Your task to perform on an android device: Clear all items from cart on amazon. Add "bose soundsport free" to the cart on amazon, then select checkout. Image 0: 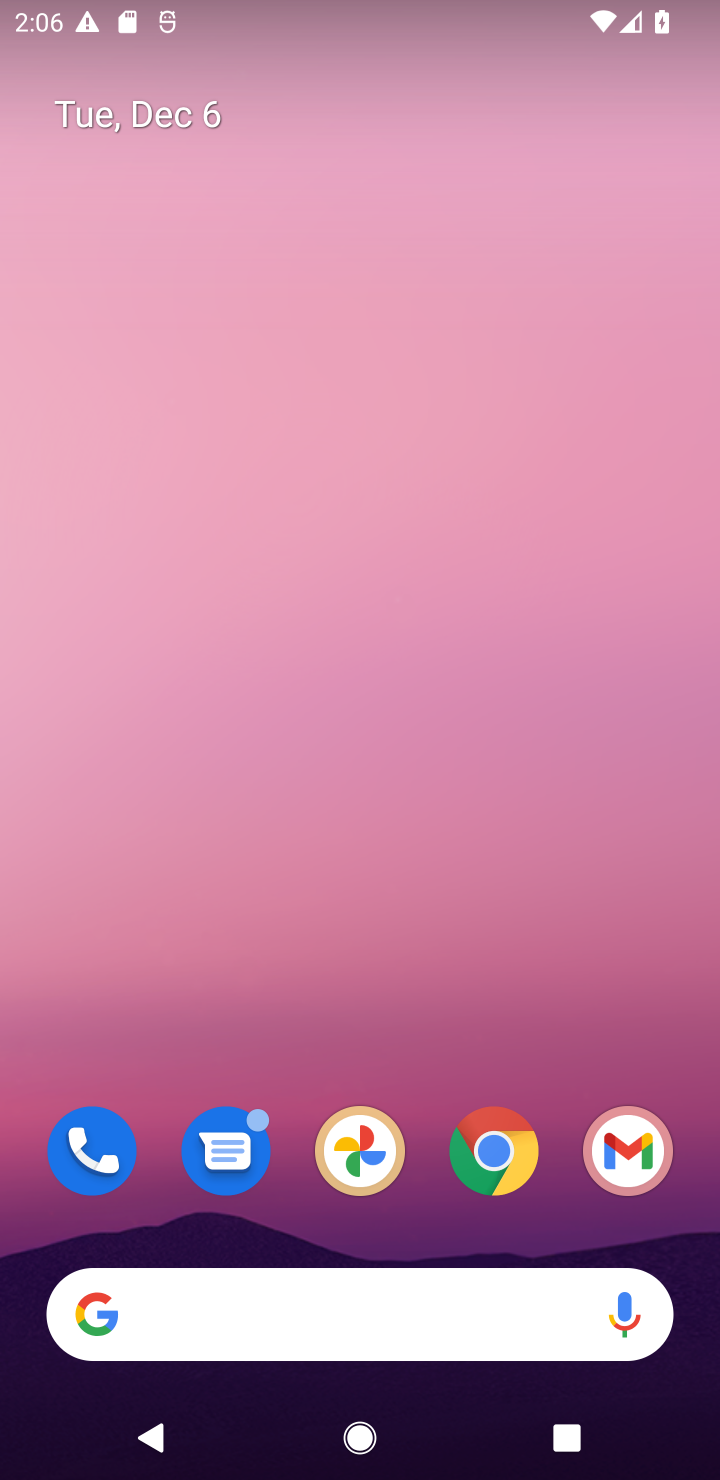
Step 0: click (495, 1175)
Your task to perform on an android device: Clear all items from cart on amazon. Add "bose soundsport free" to the cart on amazon, then select checkout. Image 1: 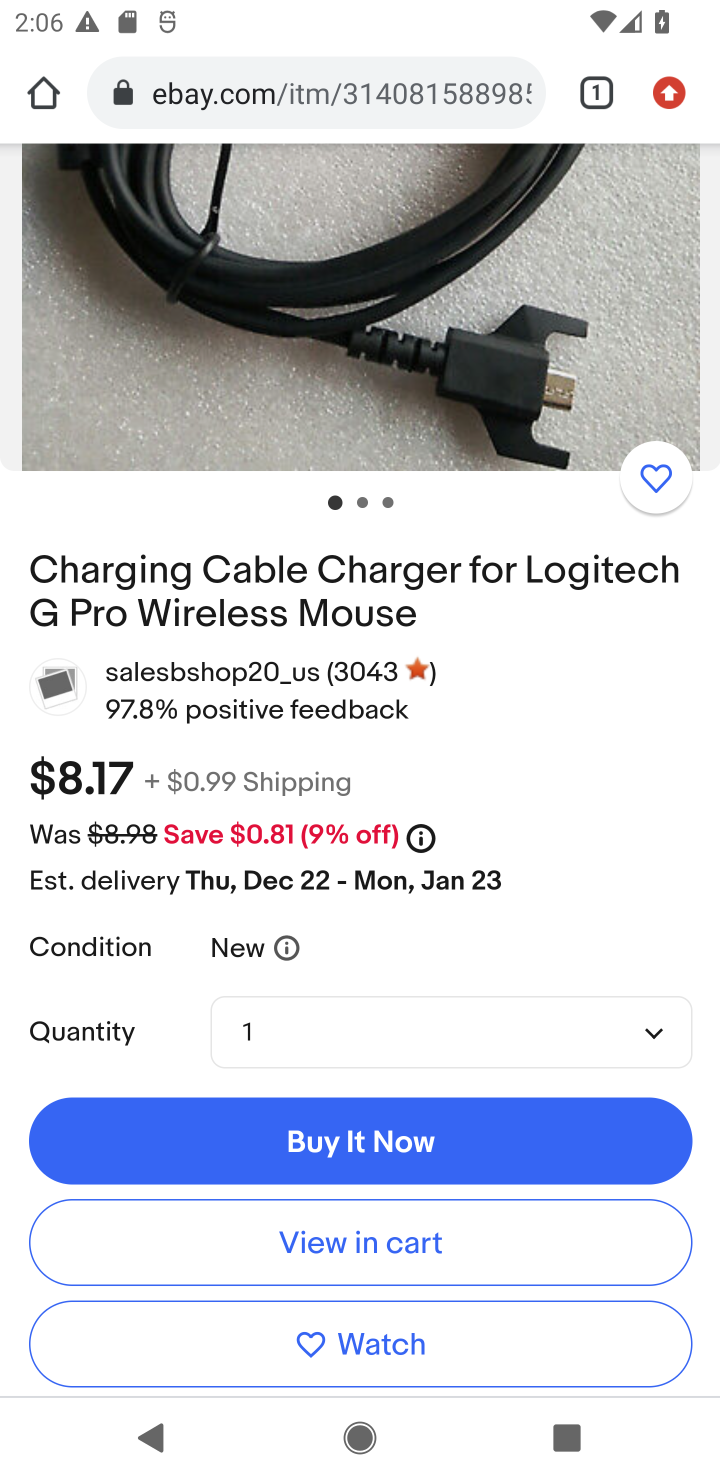
Step 1: click (339, 81)
Your task to perform on an android device: Clear all items from cart on amazon. Add "bose soundsport free" to the cart on amazon, then select checkout. Image 2: 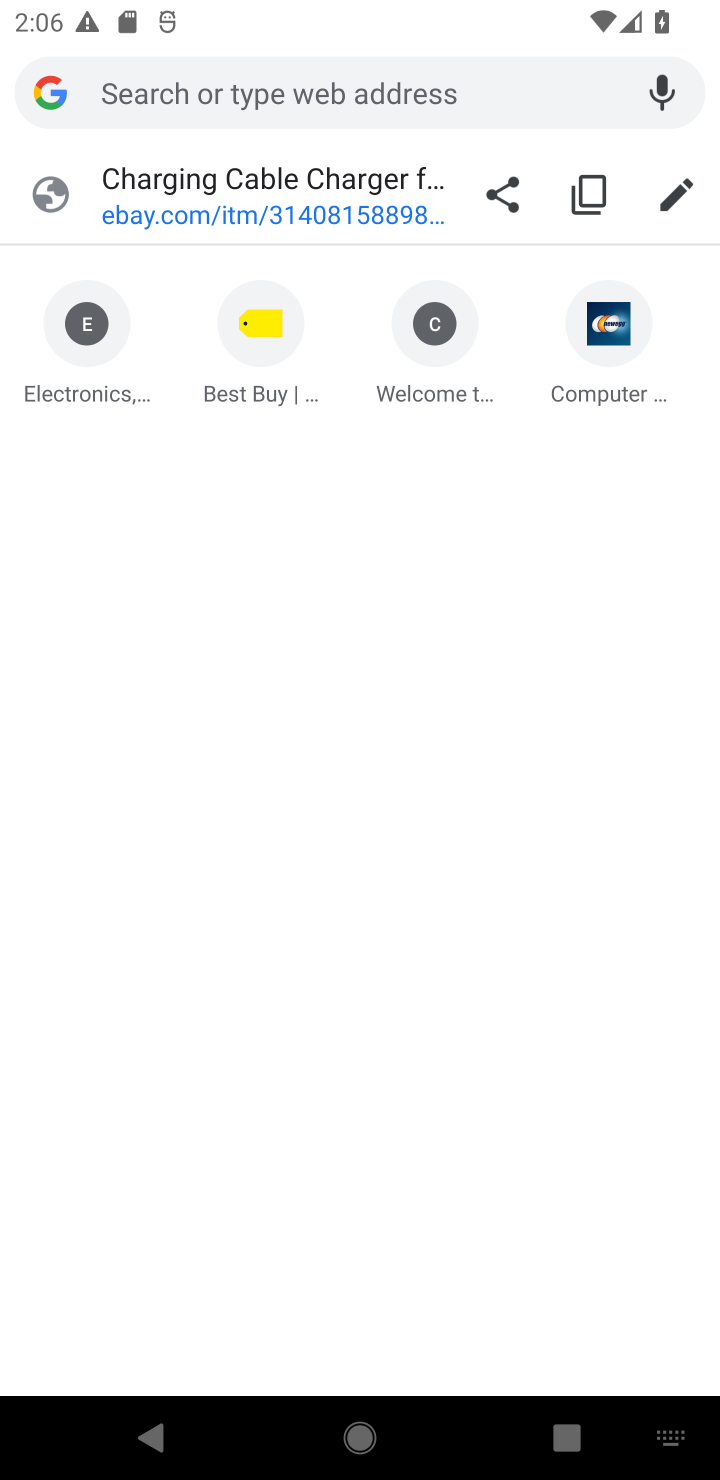
Step 2: type "amazon.com"
Your task to perform on an android device: Clear all items from cart on amazon. Add "bose soundsport free" to the cart on amazon, then select checkout. Image 3: 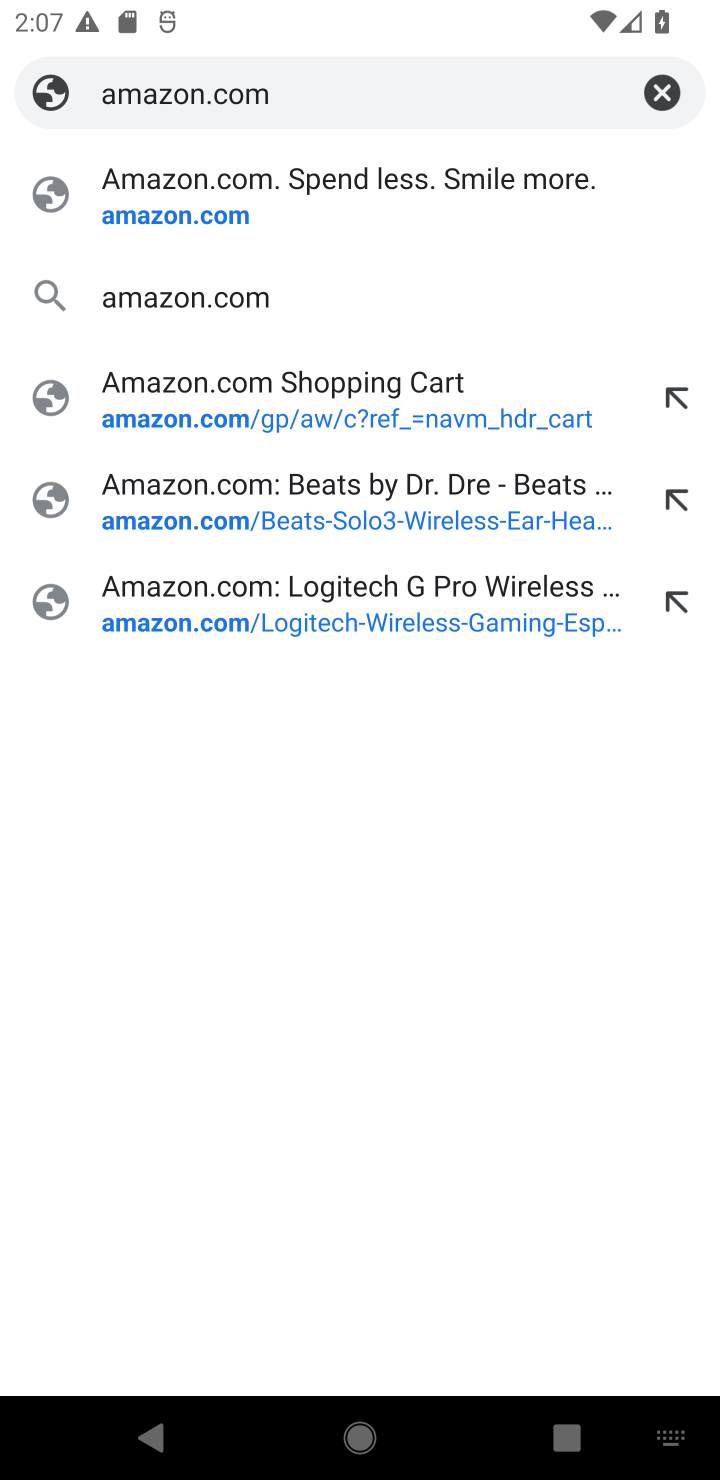
Step 3: click (211, 215)
Your task to perform on an android device: Clear all items from cart on amazon. Add "bose soundsport free" to the cart on amazon, then select checkout. Image 4: 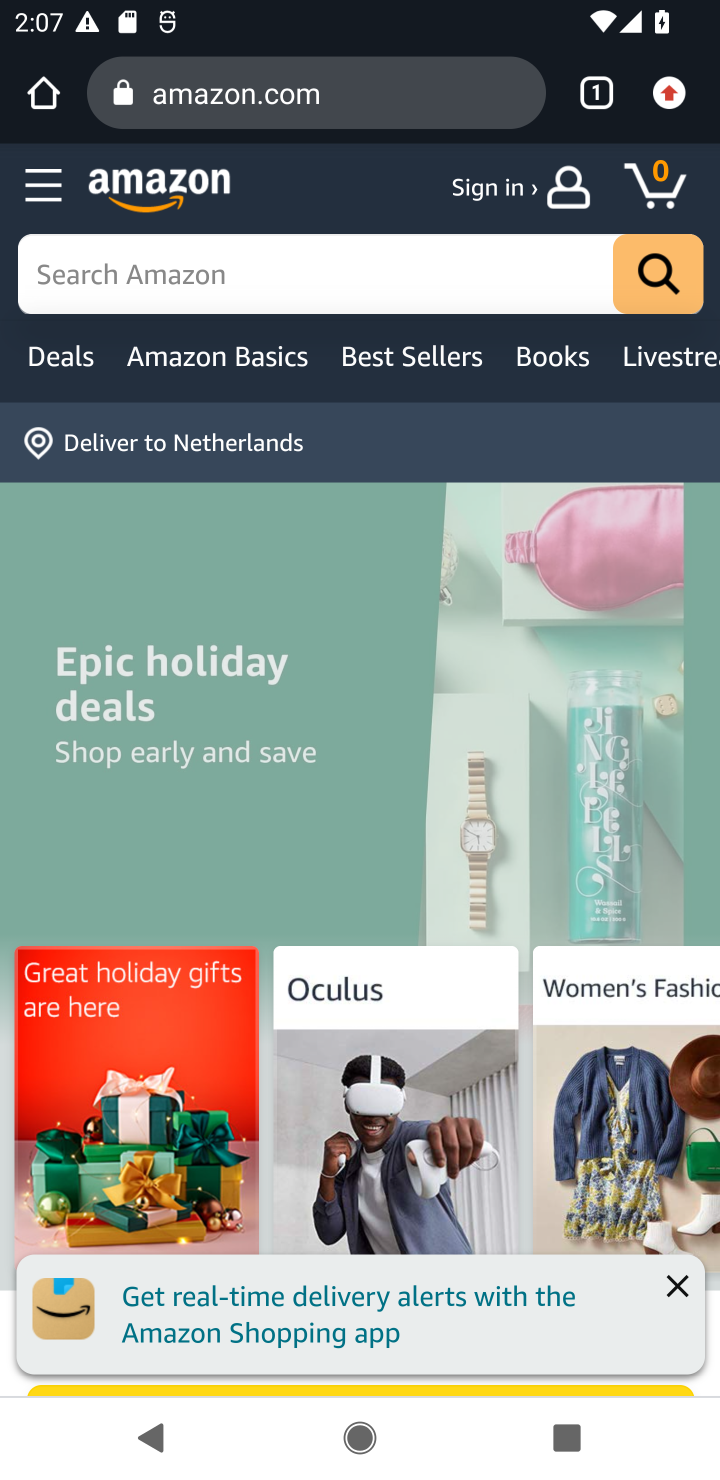
Step 4: click (656, 184)
Your task to perform on an android device: Clear all items from cart on amazon. Add "bose soundsport free" to the cart on amazon, then select checkout. Image 5: 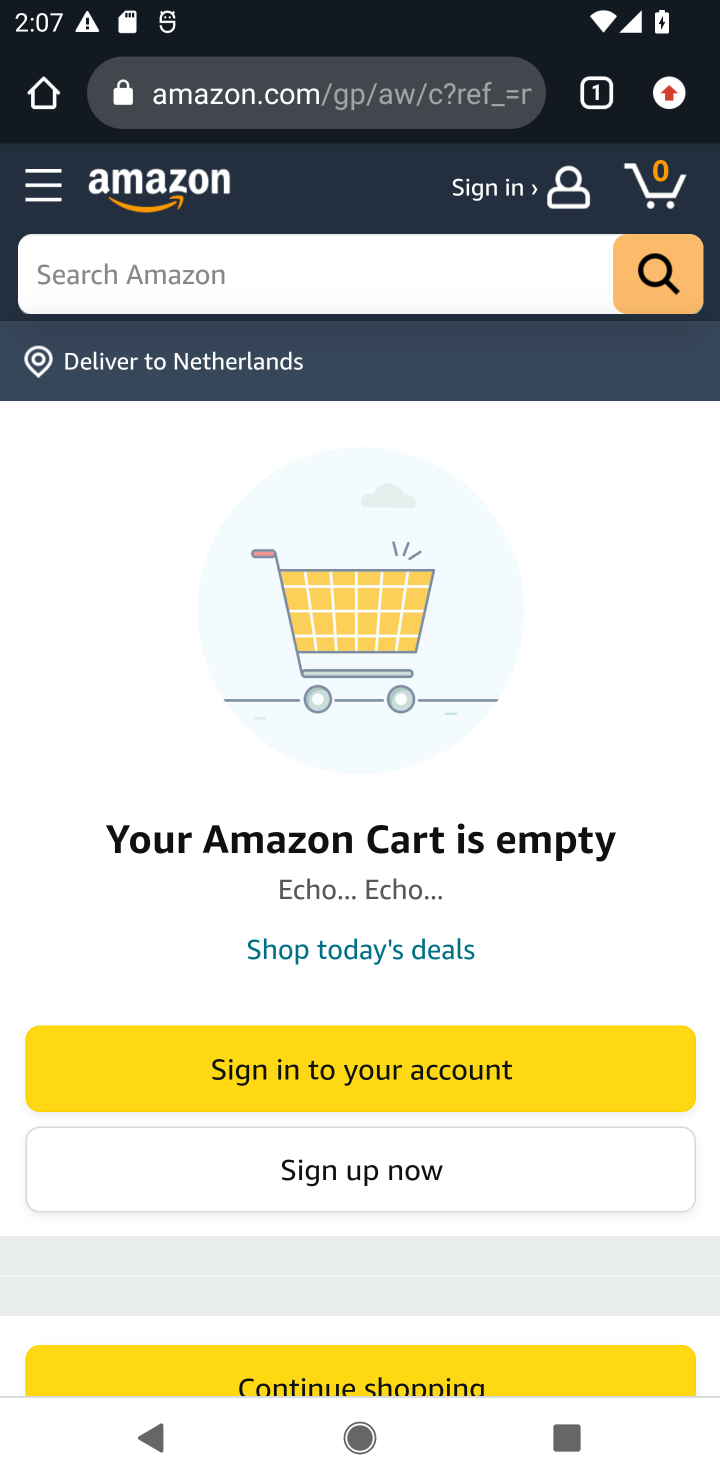
Step 5: click (68, 262)
Your task to perform on an android device: Clear all items from cart on amazon. Add "bose soundsport free" to the cart on amazon, then select checkout. Image 6: 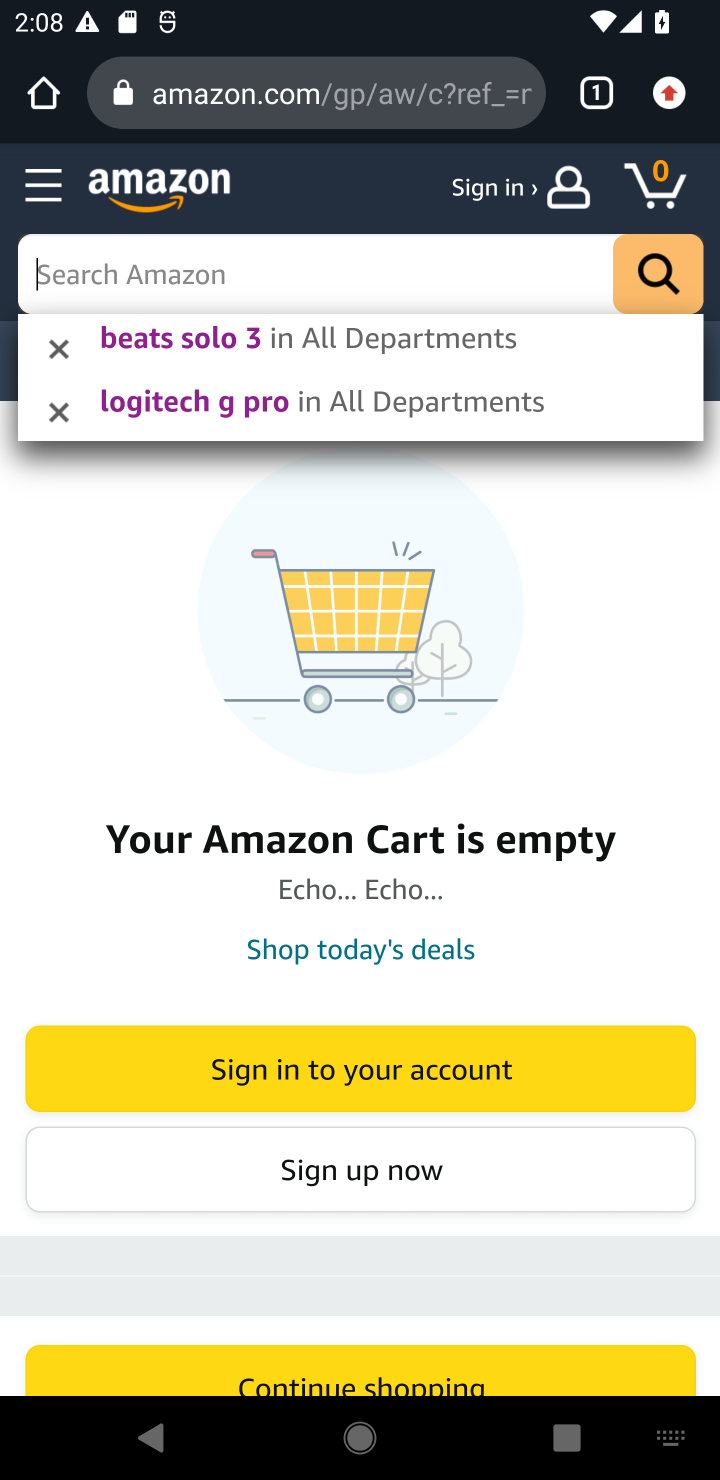
Step 6: type "bose soundsport free"
Your task to perform on an android device: Clear all items from cart on amazon. Add "bose soundsport free" to the cart on amazon, then select checkout. Image 7: 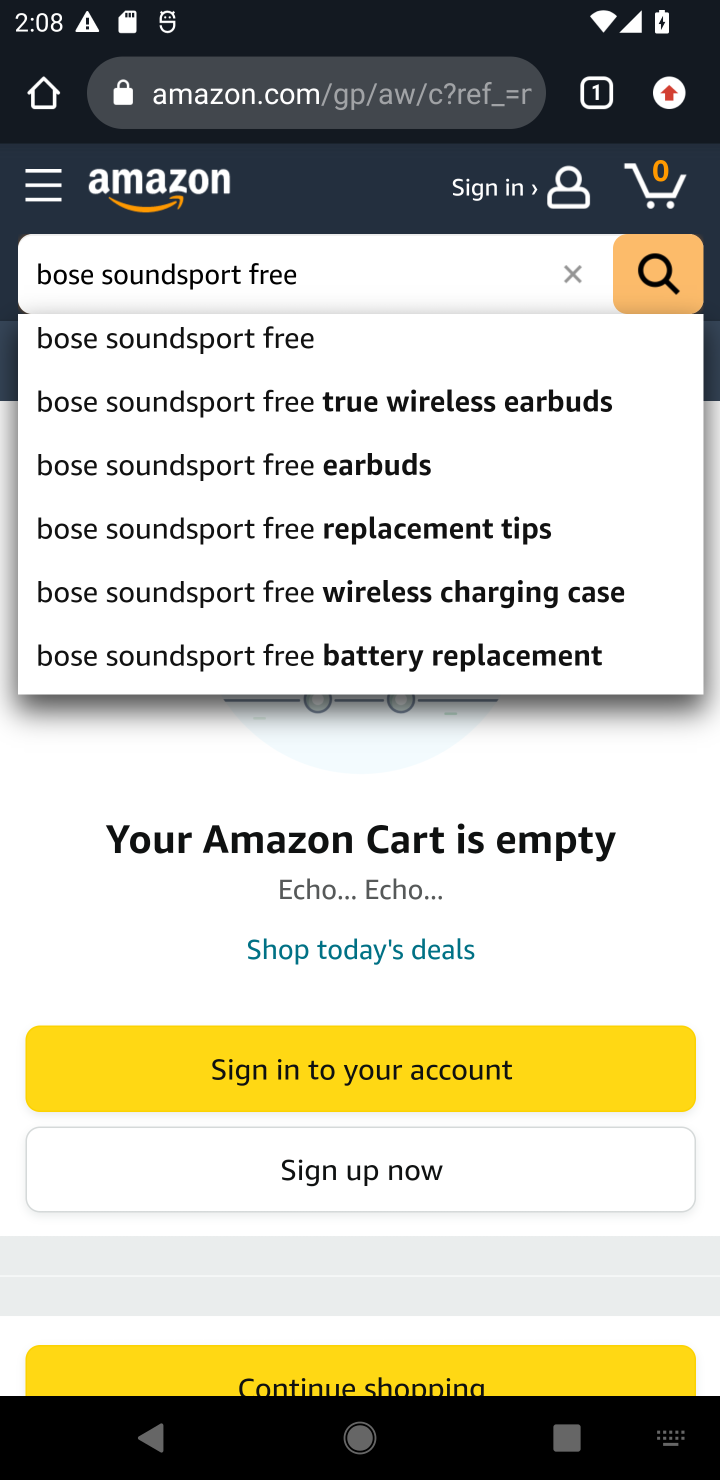
Step 7: click (222, 343)
Your task to perform on an android device: Clear all items from cart on amazon. Add "bose soundsport free" to the cart on amazon, then select checkout. Image 8: 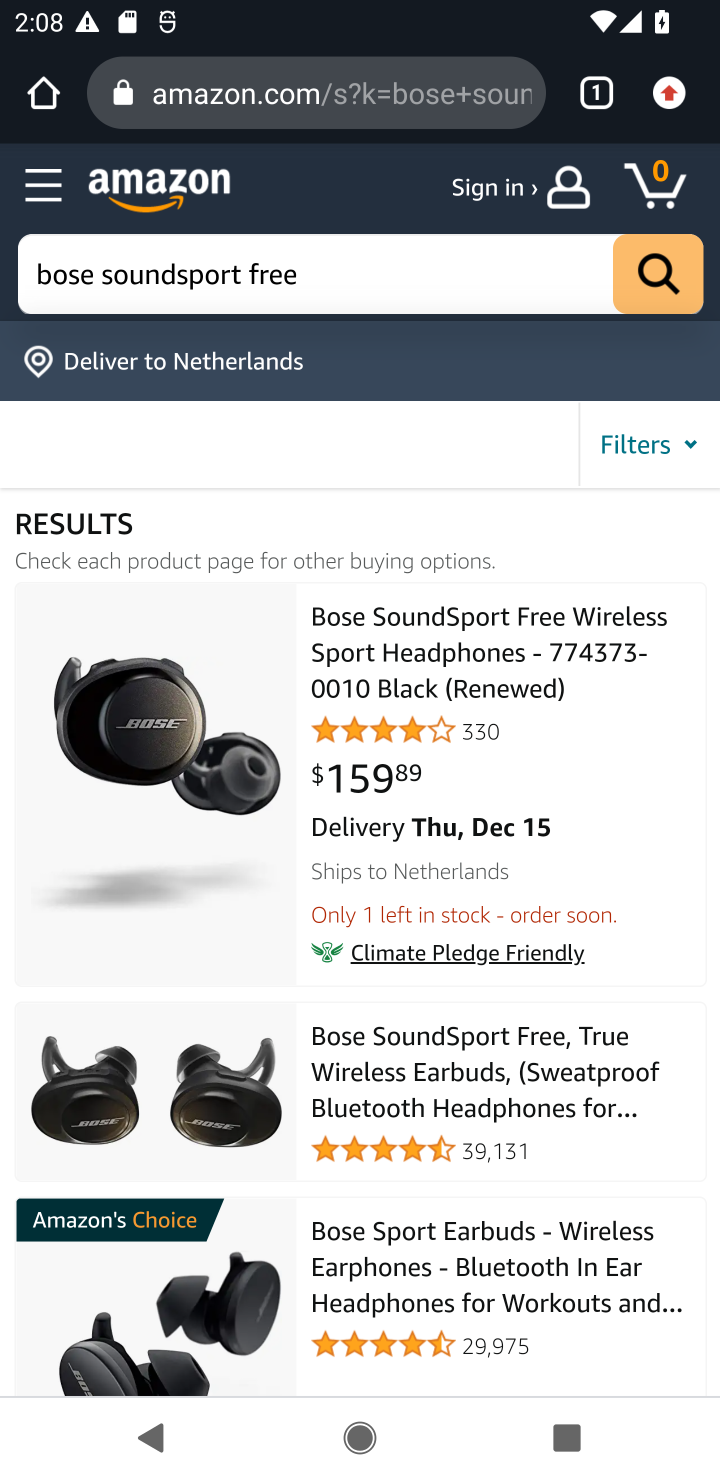
Step 8: click (413, 690)
Your task to perform on an android device: Clear all items from cart on amazon. Add "bose soundsport free" to the cart on amazon, then select checkout. Image 9: 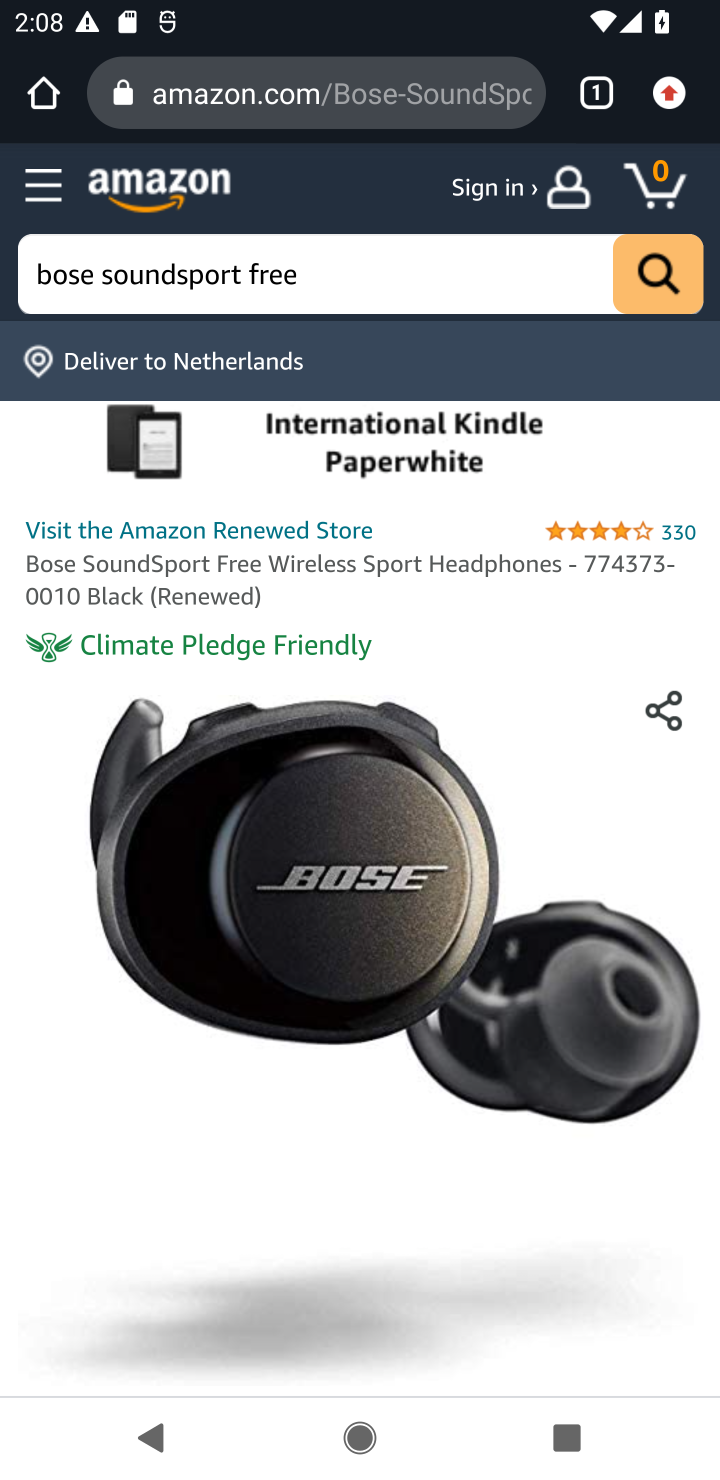
Step 9: drag from (359, 485) to (345, 361)
Your task to perform on an android device: Clear all items from cart on amazon. Add "bose soundsport free" to the cart on amazon, then select checkout. Image 10: 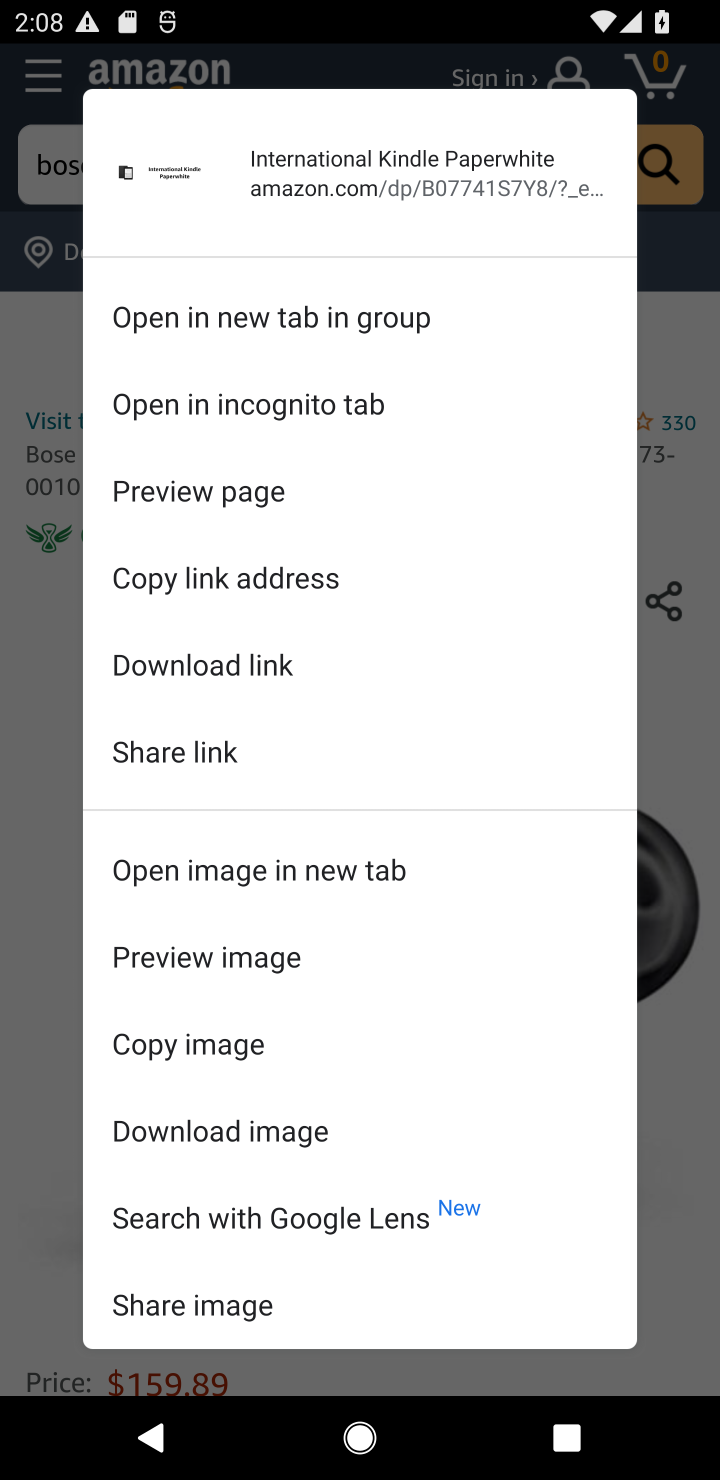
Step 10: drag from (692, 1072) to (668, 324)
Your task to perform on an android device: Clear all items from cart on amazon. Add "bose soundsport free" to the cart on amazon, then select checkout. Image 11: 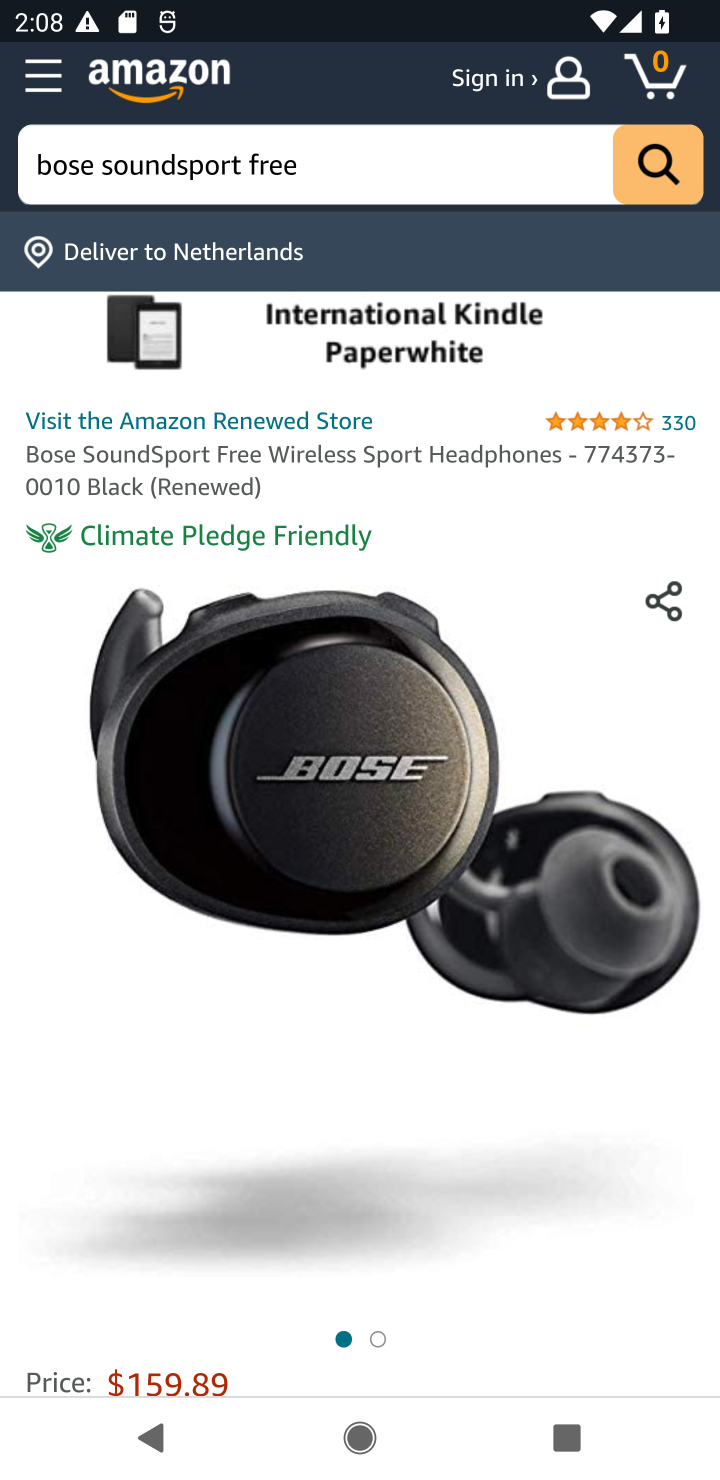
Step 11: drag from (533, 984) to (461, 413)
Your task to perform on an android device: Clear all items from cart on amazon. Add "bose soundsport free" to the cart on amazon, then select checkout. Image 12: 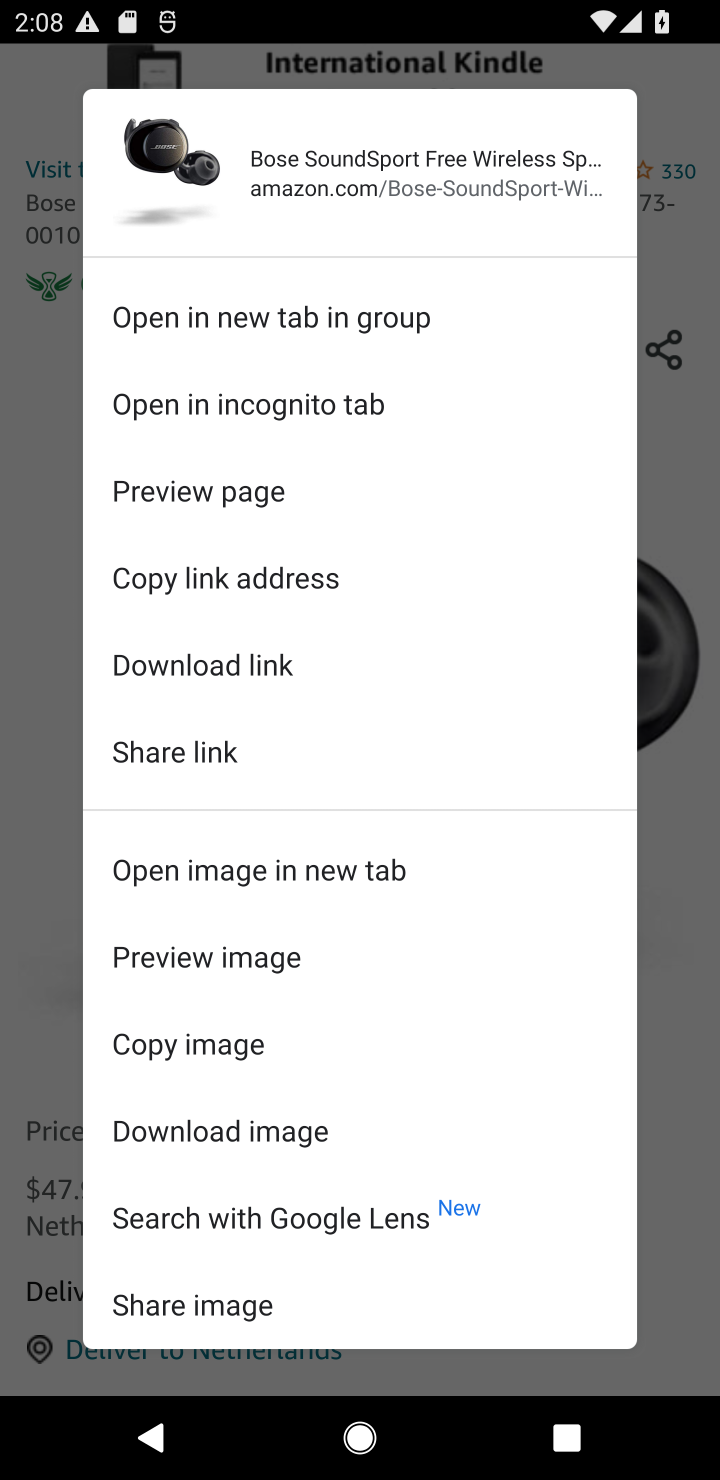
Step 12: click (676, 1034)
Your task to perform on an android device: Clear all items from cart on amazon. Add "bose soundsport free" to the cart on amazon, then select checkout. Image 13: 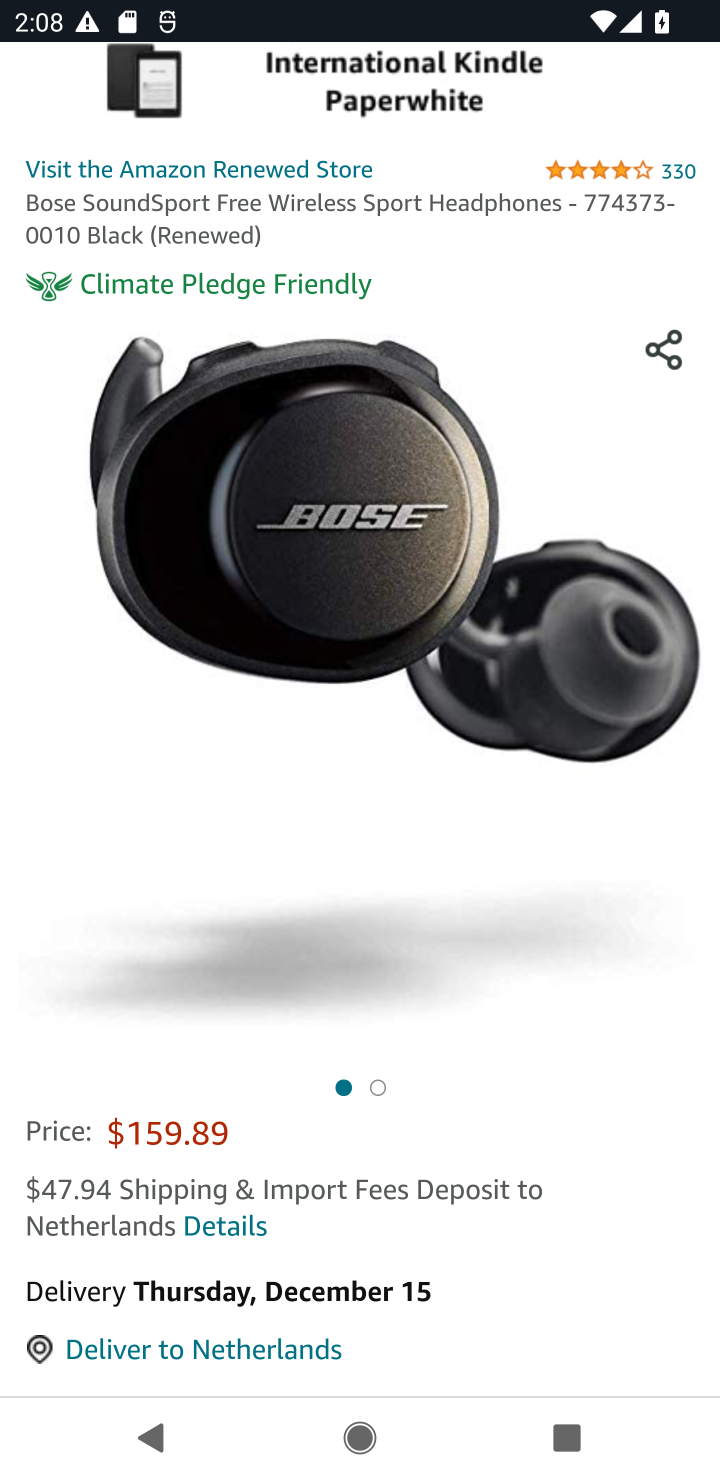
Step 13: drag from (489, 555) to (462, 409)
Your task to perform on an android device: Clear all items from cart on amazon. Add "bose soundsport free" to the cart on amazon, then select checkout. Image 14: 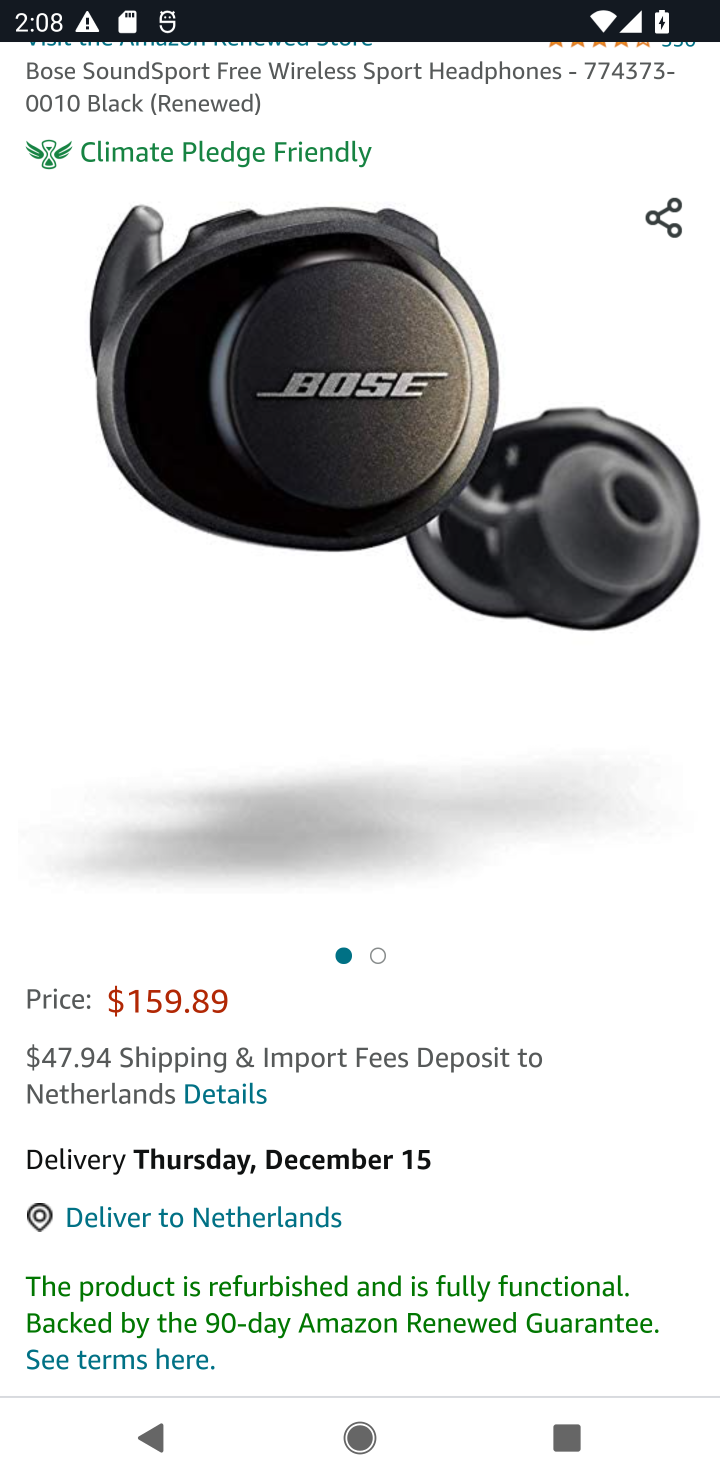
Step 14: drag from (498, 953) to (437, 368)
Your task to perform on an android device: Clear all items from cart on amazon. Add "bose soundsport free" to the cart on amazon, then select checkout. Image 15: 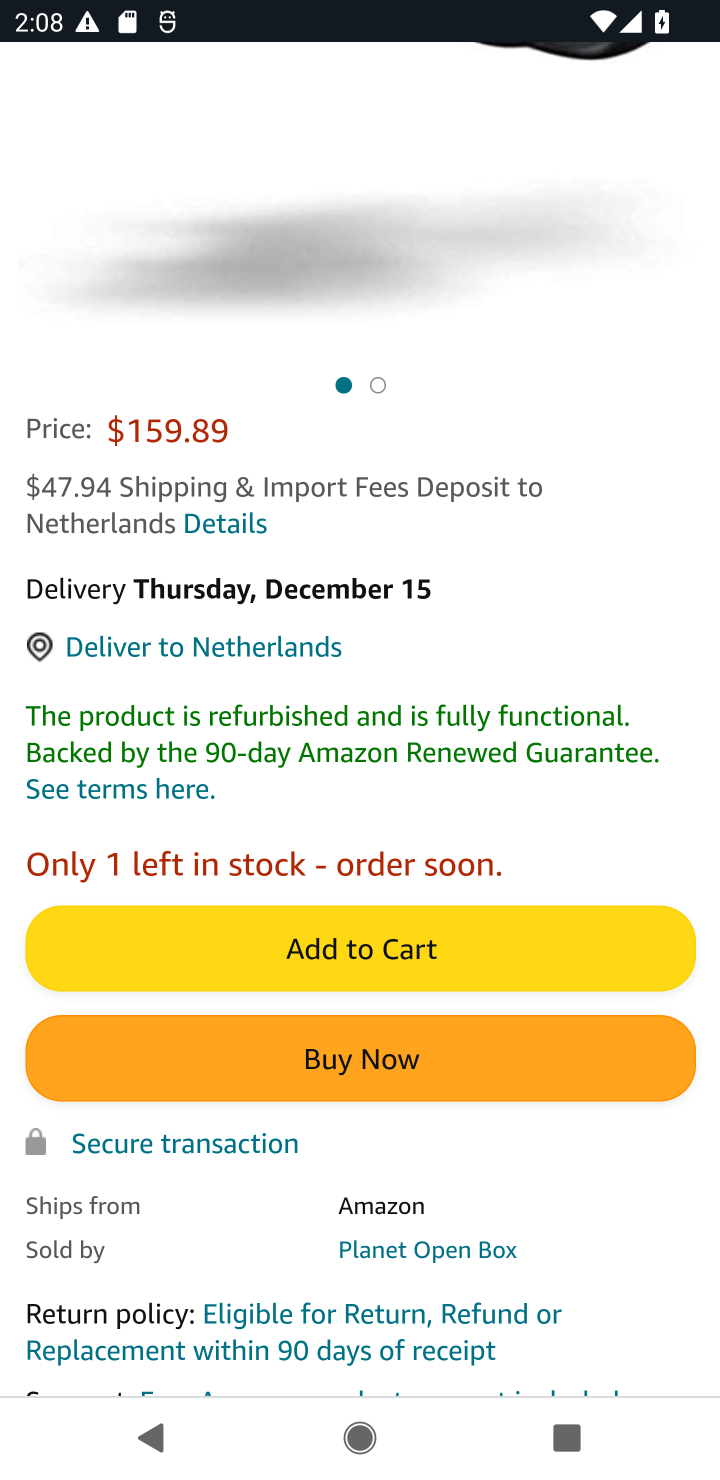
Step 15: click (328, 947)
Your task to perform on an android device: Clear all items from cart on amazon. Add "bose soundsport free" to the cart on amazon, then select checkout. Image 16: 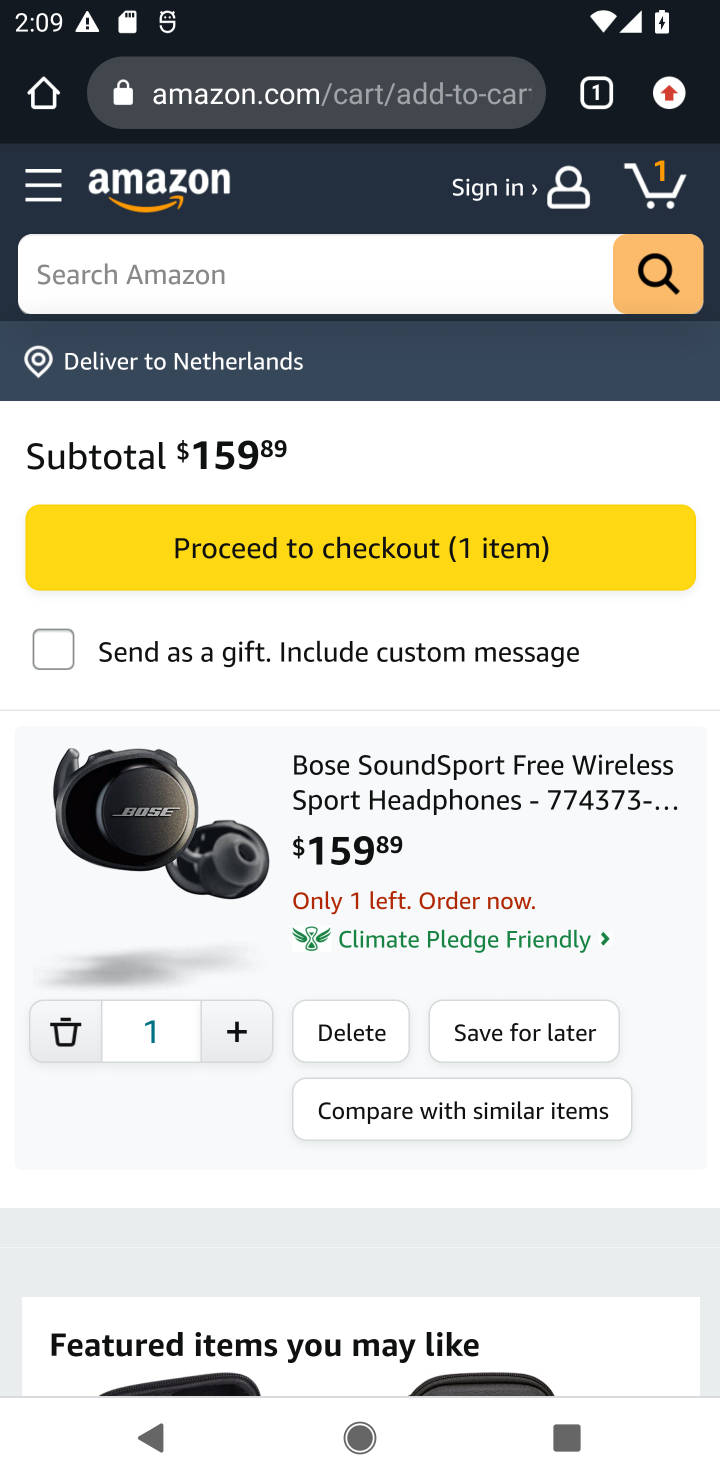
Step 16: click (328, 557)
Your task to perform on an android device: Clear all items from cart on amazon. Add "bose soundsport free" to the cart on amazon, then select checkout. Image 17: 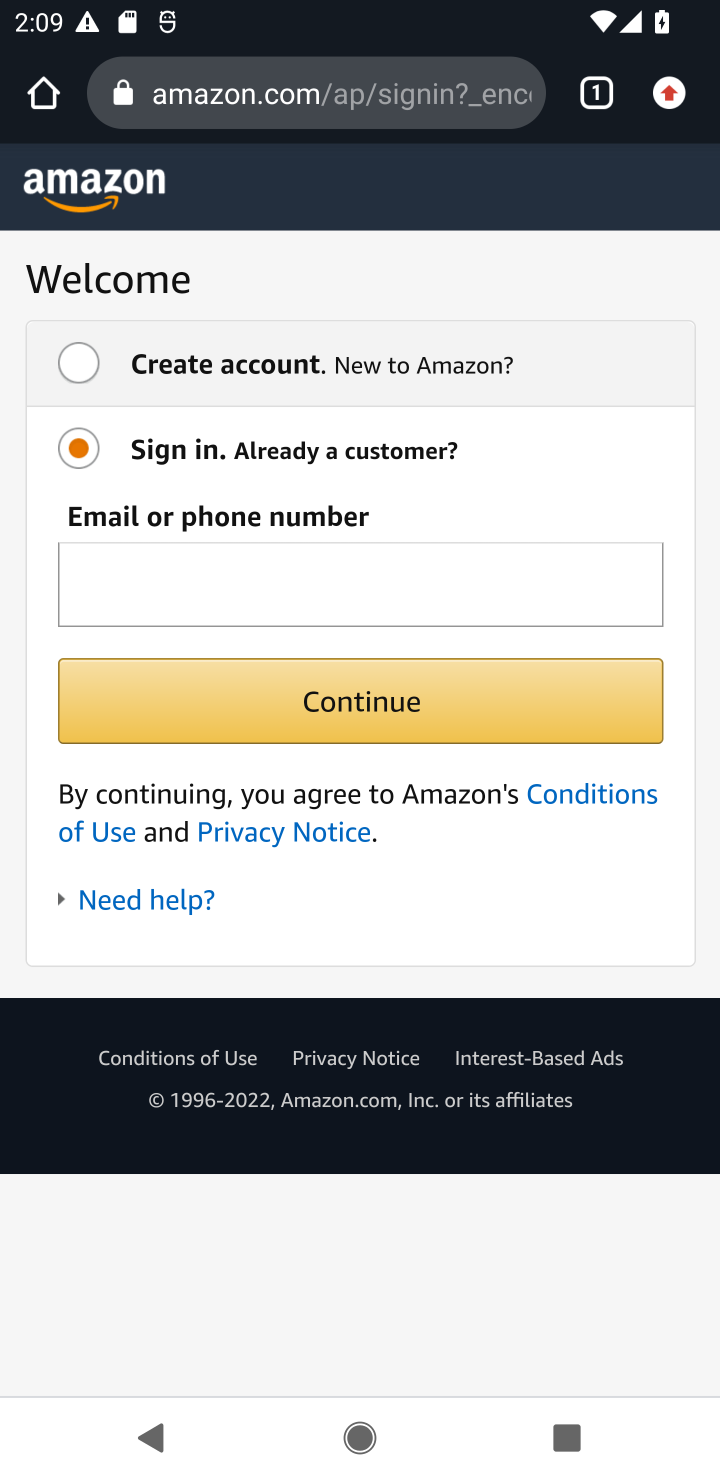
Step 17: task complete